Your task to perform on an android device: open app "Spotify: Music and Podcasts" (install if not already installed), go to login, and select forgot password Image 0: 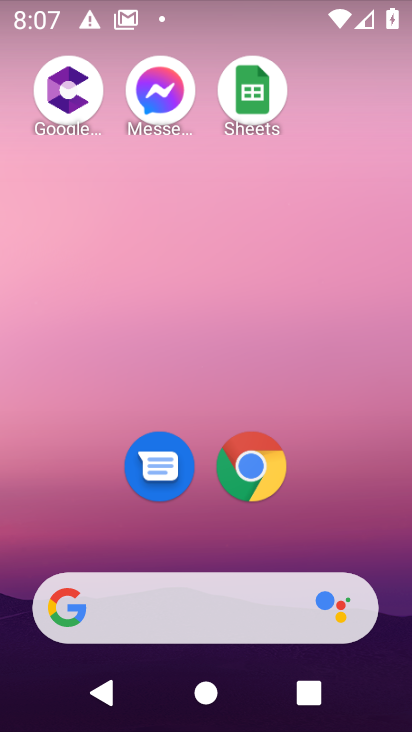
Step 0: drag from (165, 539) to (256, 59)
Your task to perform on an android device: open app "Spotify: Music and Podcasts" (install if not already installed), go to login, and select forgot password Image 1: 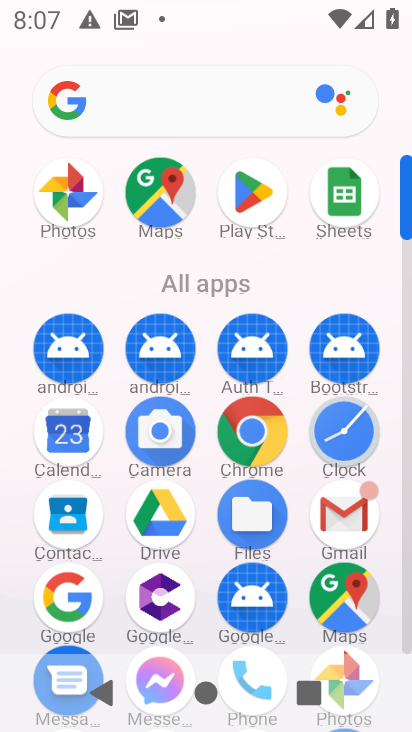
Step 1: click (254, 197)
Your task to perform on an android device: open app "Spotify: Music and Podcasts" (install if not already installed), go to login, and select forgot password Image 2: 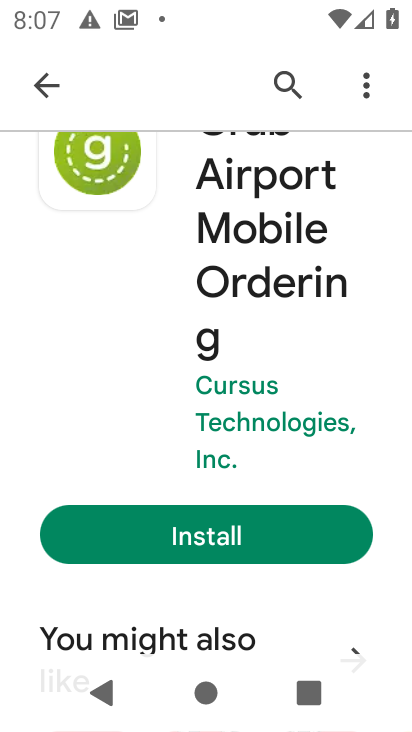
Step 2: click (294, 72)
Your task to perform on an android device: open app "Spotify: Music and Podcasts" (install if not already installed), go to login, and select forgot password Image 3: 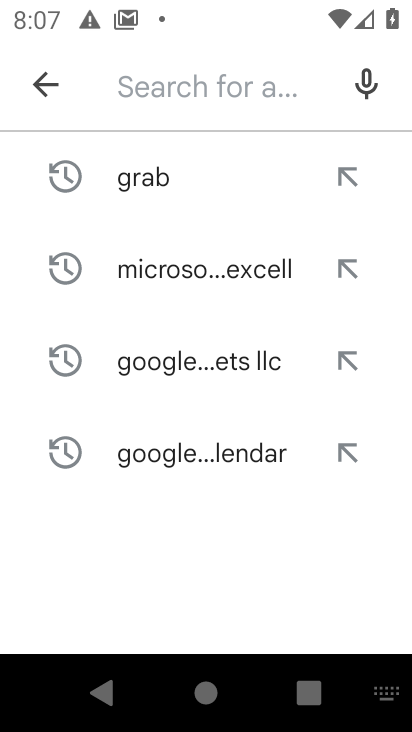
Step 3: click (169, 60)
Your task to perform on an android device: open app "Spotify: Music and Podcasts" (install if not already installed), go to login, and select forgot password Image 4: 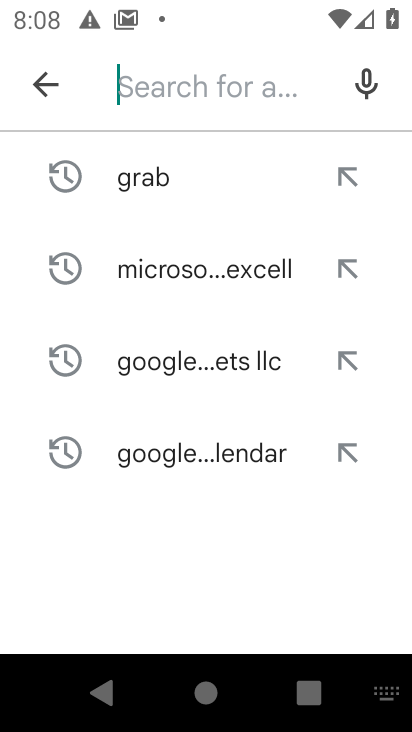
Step 4: type "Spotify"
Your task to perform on an android device: open app "Spotify: Music and Podcasts" (install if not already installed), go to login, and select forgot password Image 5: 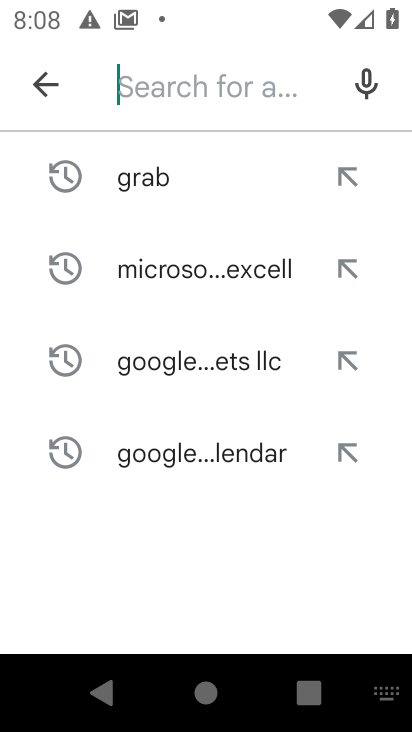
Step 5: click (177, 589)
Your task to perform on an android device: open app "Spotify: Music and Podcasts" (install if not already installed), go to login, and select forgot password Image 6: 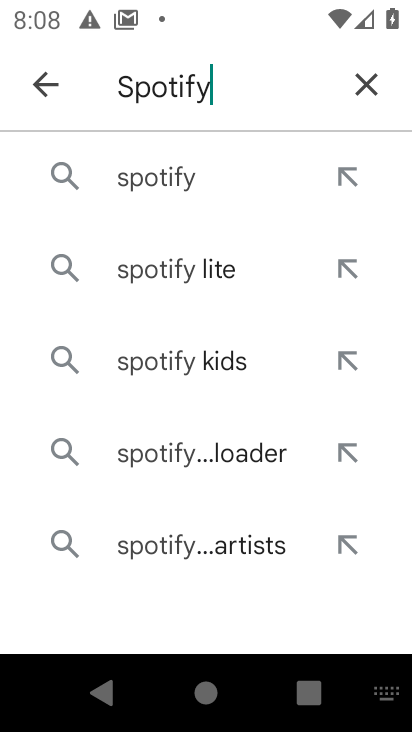
Step 6: click (162, 180)
Your task to perform on an android device: open app "Spotify: Music and Podcasts" (install if not already installed), go to login, and select forgot password Image 7: 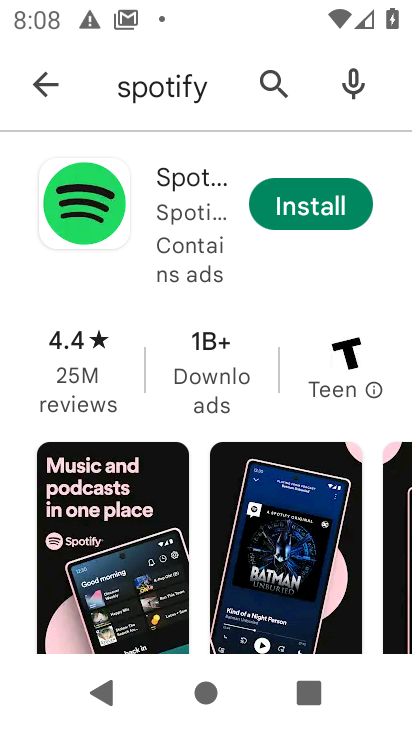
Step 7: click (314, 214)
Your task to perform on an android device: open app "Spotify: Music and Podcasts" (install if not already installed), go to login, and select forgot password Image 8: 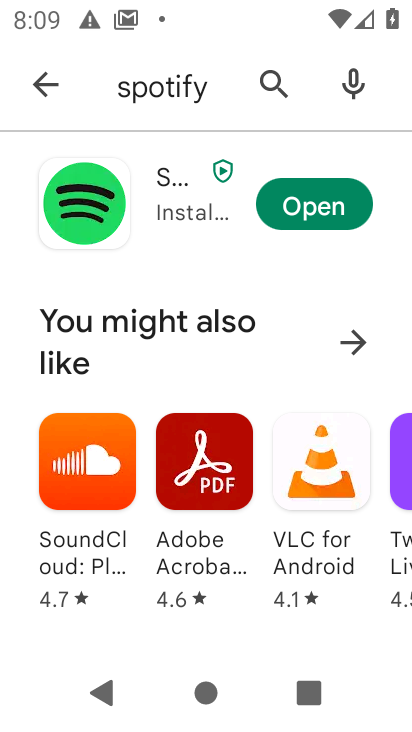
Step 8: click (300, 212)
Your task to perform on an android device: open app "Spotify: Music and Podcasts" (install if not already installed), go to login, and select forgot password Image 9: 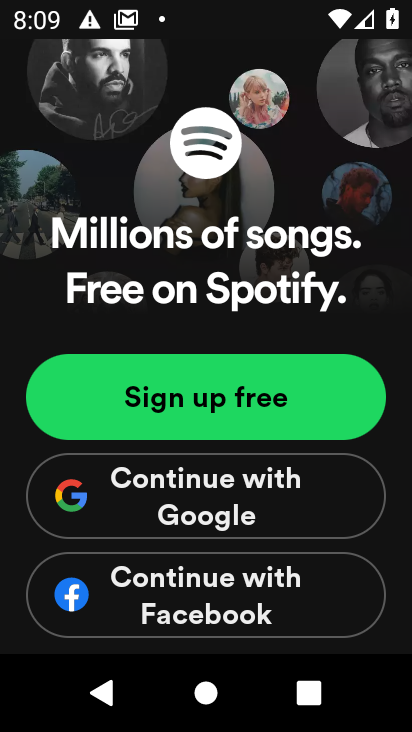
Step 9: drag from (274, 623) to (340, 84)
Your task to perform on an android device: open app "Spotify: Music and Podcasts" (install if not already installed), go to login, and select forgot password Image 10: 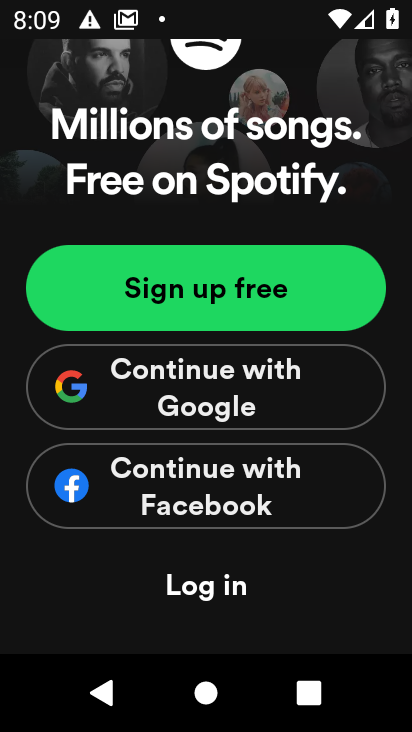
Step 10: click (216, 589)
Your task to perform on an android device: open app "Spotify: Music and Podcasts" (install if not already installed), go to login, and select forgot password Image 11: 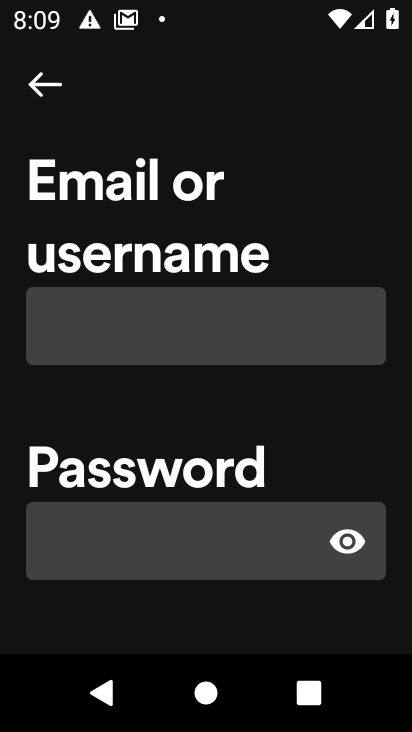
Step 11: task complete